Your task to perform on an android device: Go to accessibility settings Image 0: 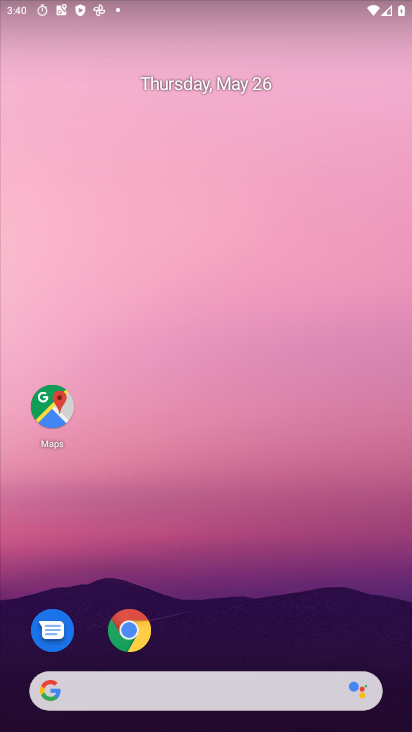
Step 0: drag from (224, 636) to (194, 99)
Your task to perform on an android device: Go to accessibility settings Image 1: 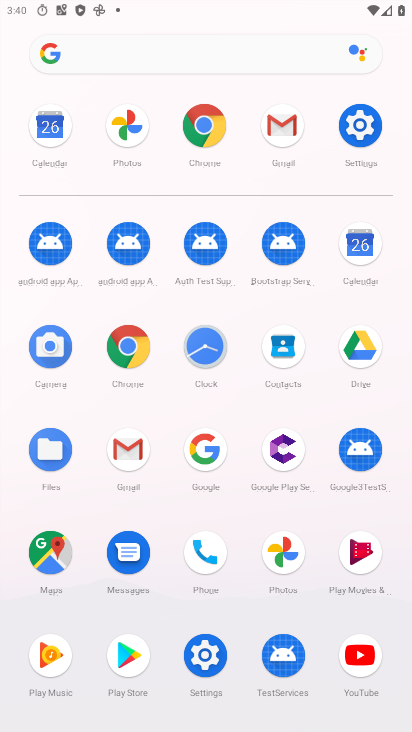
Step 1: click (350, 117)
Your task to perform on an android device: Go to accessibility settings Image 2: 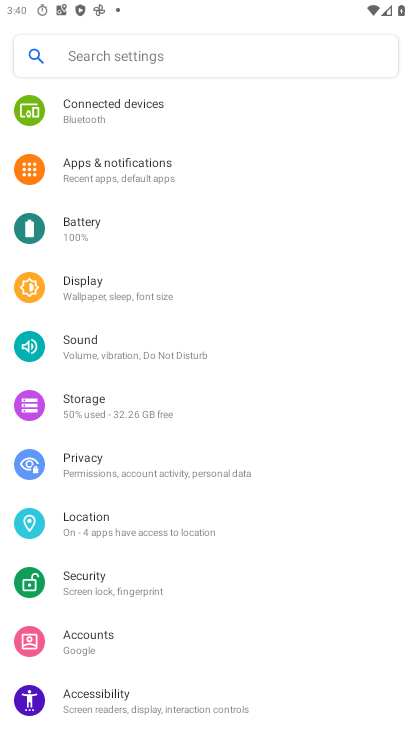
Step 2: click (141, 700)
Your task to perform on an android device: Go to accessibility settings Image 3: 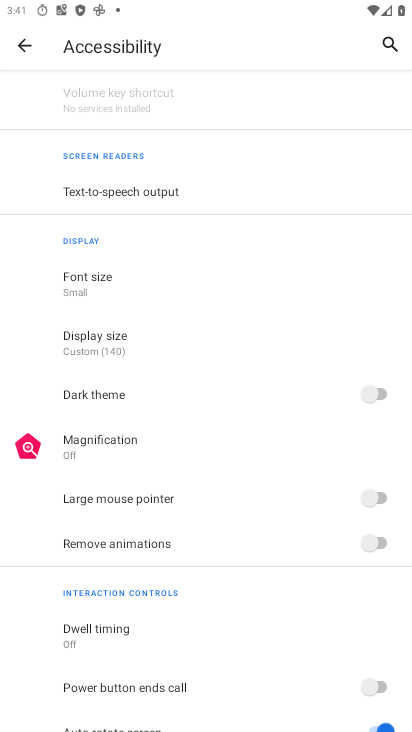
Step 3: task complete